Your task to perform on an android device: set an alarm Image 0: 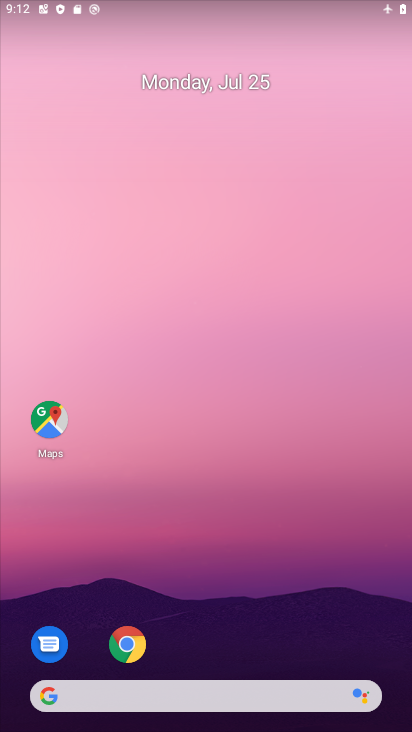
Step 0: drag from (303, 601) to (283, 2)
Your task to perform on an android device: set an alarm Image 1: 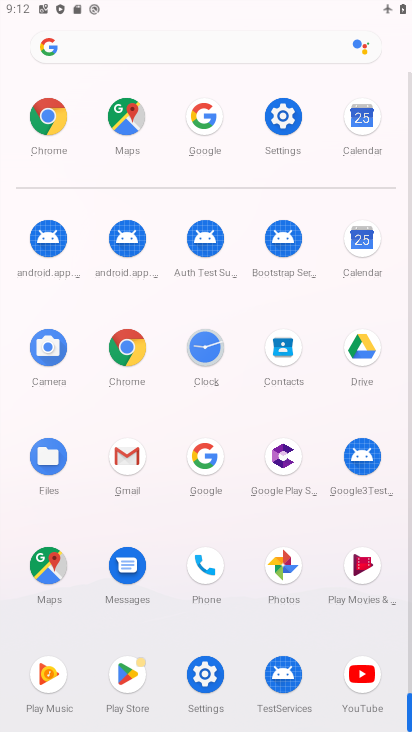
Step 1: click (205, 364)
Your task to perform on an android device: set an alarm Image 2: 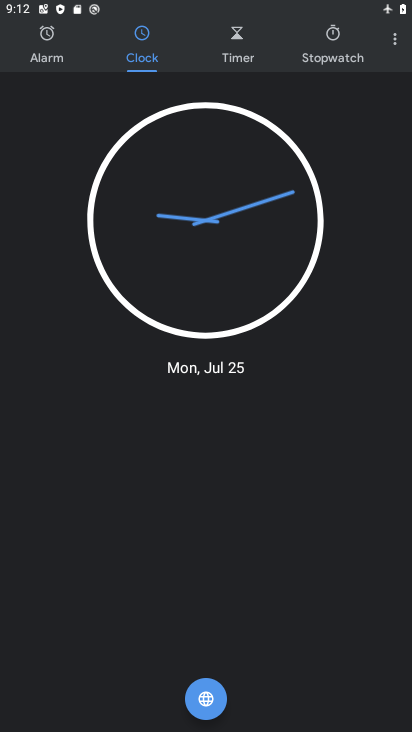
Step 2: click (52, 57)
Your task to perform on an android device: set an alarm Image 3: 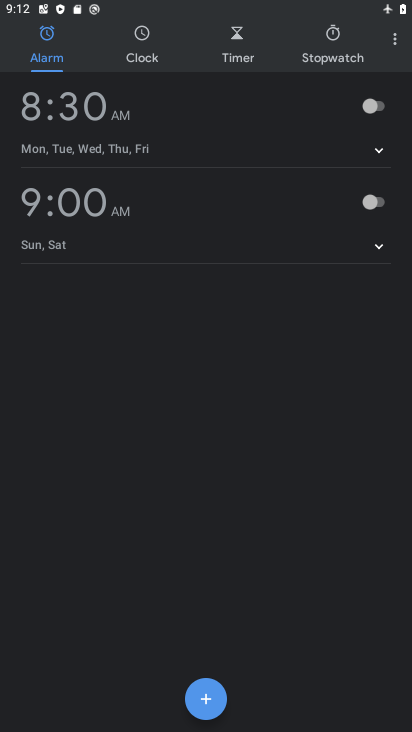
Step 3: click (374, 112)
Your task to perform on an android device: set an alarm Image 4: 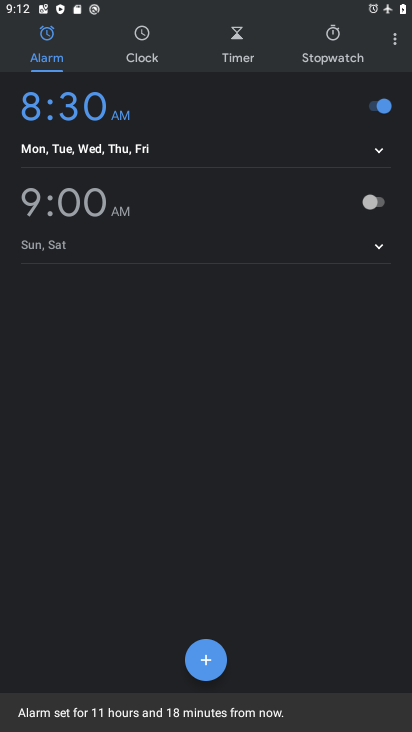
Step 4: task complete